Your task to perform on an android device: clear all cookies in the chrome app Image 0: 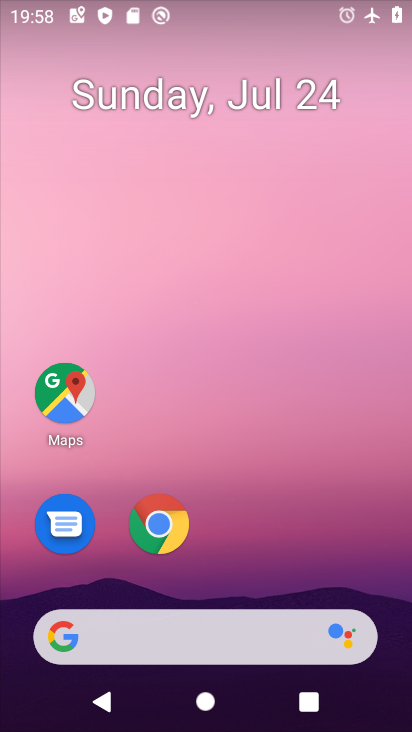
Step 0: click (169, 530)
Your task to perform on an android device: clear all cookies in the chrome app Image 1: 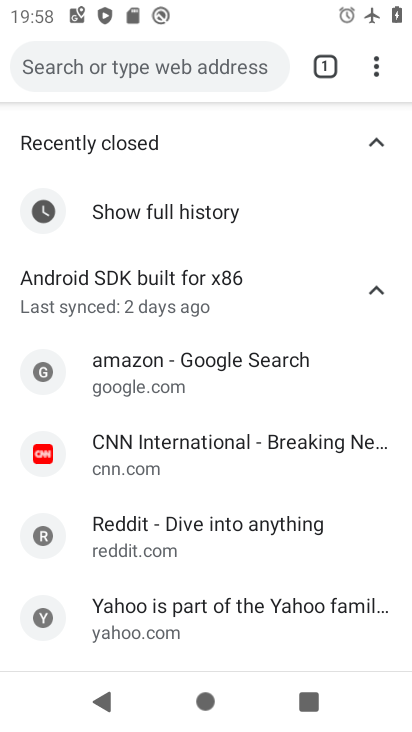
Step 1: click (374, 67)
Your task to perform on an android device: clear all cookies in the chrome app Image 2: 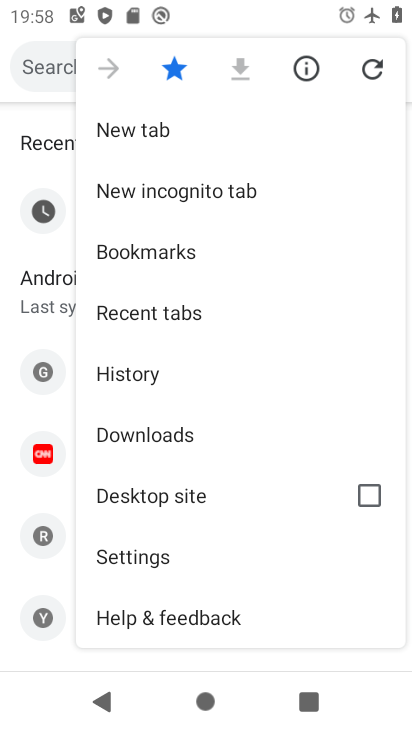
Step 2: click (153, 560)
Your task to perform on an android device: clear all cookies in the chrome app Image 3: 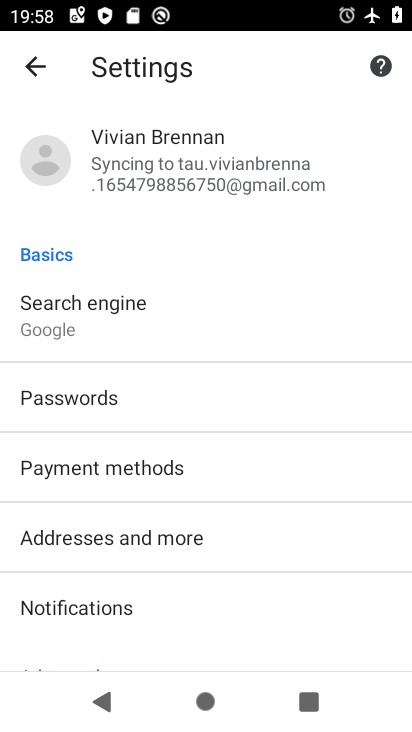
Step 3: drag from (224, 541) to (281, 249)
Your task to perform on an android device: clear all cookies in the chrome app Image 4: 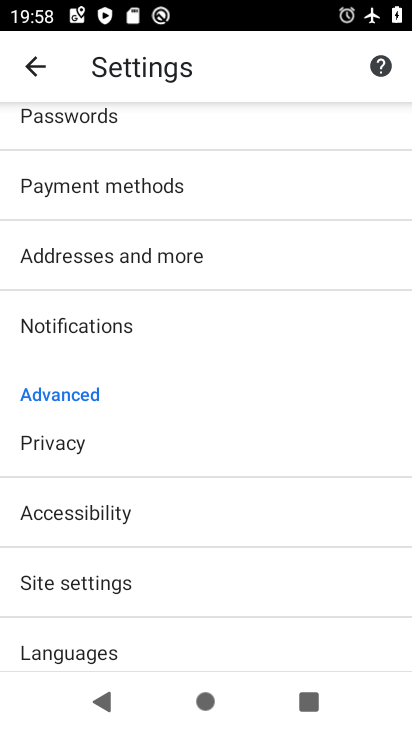
Step 4: click (68, 443)
Your task to perform on an android device: clear all cookies in the chrome app Image 5: 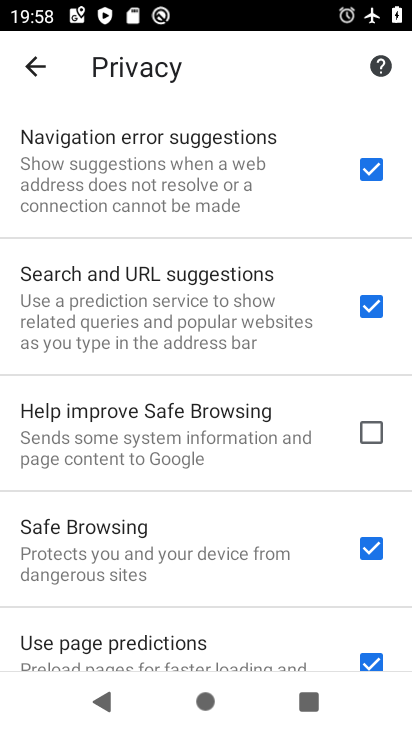
Step 5: drag from (224, 616) to (276, 0)
Your task to perform on an android device: clear all cookies in the chrome app Image 6: 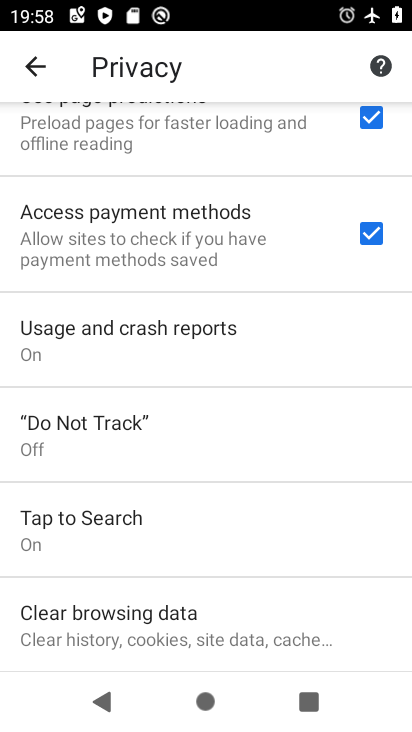
Step 6: click (172, 639)
Your task to perform on an android device: clear all cookies in the chrome app Image 7: 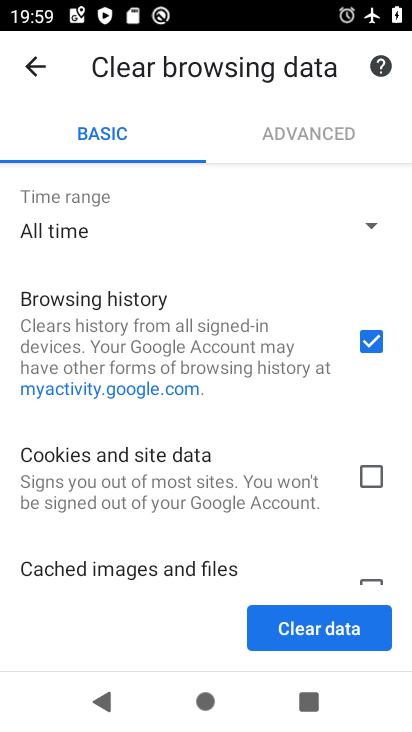
Step 7: click (369, 472)
Your task to perform on an android device: clear all cookies in the chrome app Image 8: 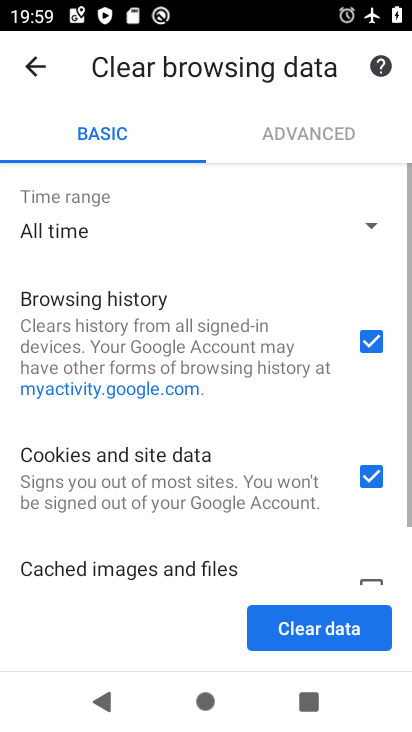
Step 8: click (372, 337)
Your task to perform on an android device: clear all cookies in the chrome app Image 9: 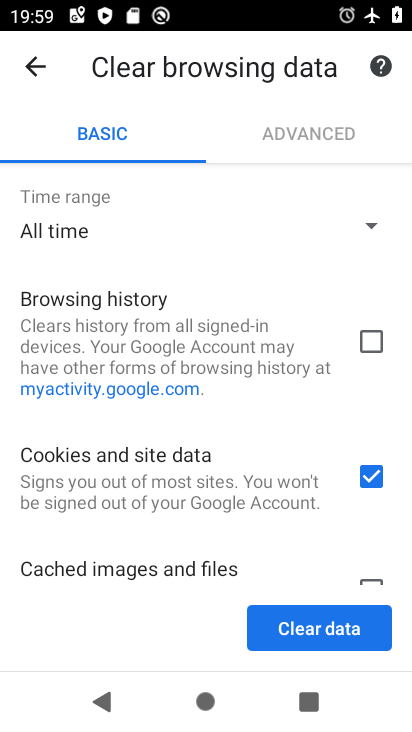
Step 9: drag from (321, 517) to (323, 425)
Your task to perform on an android device: clear all cookies in the chrome app Image 10: 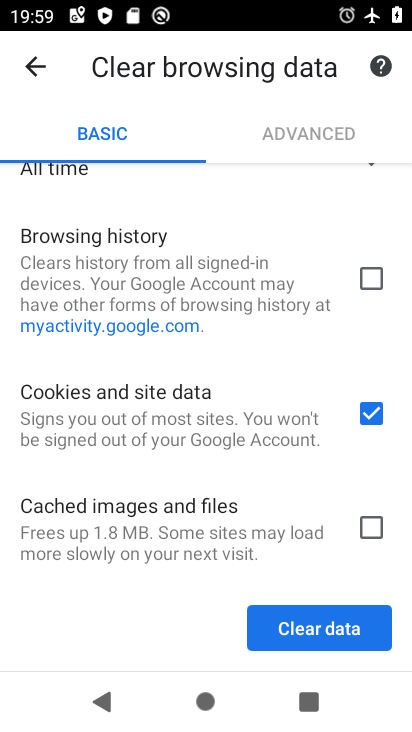
Step 10: click (314, 630)
Your task to perform on an android device: clear all cookies in the chrome app Image 11: 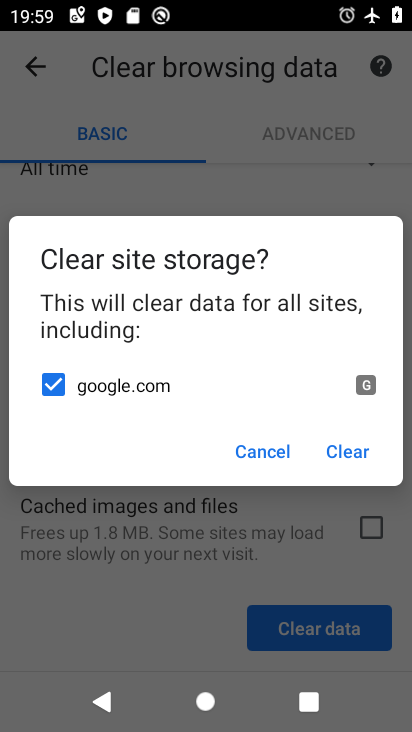
Step 11: click (355, 457)
Your task to perform on an android device: clear all cookies in the chrome app Image 12: 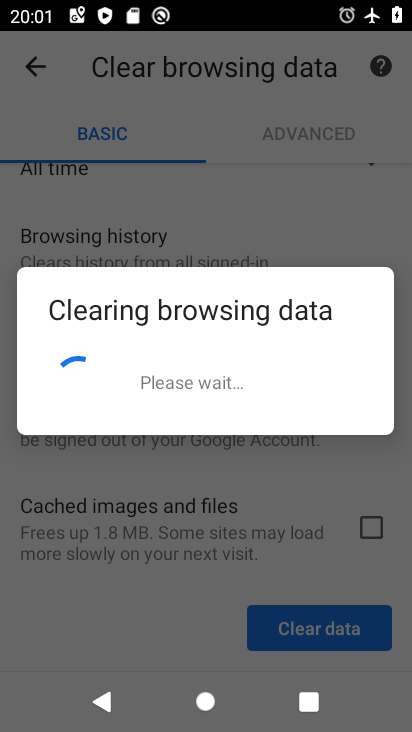
Step 12: task complete